Your task to perform on an android device: open chrome and create a bookmark for the current page Image 0: 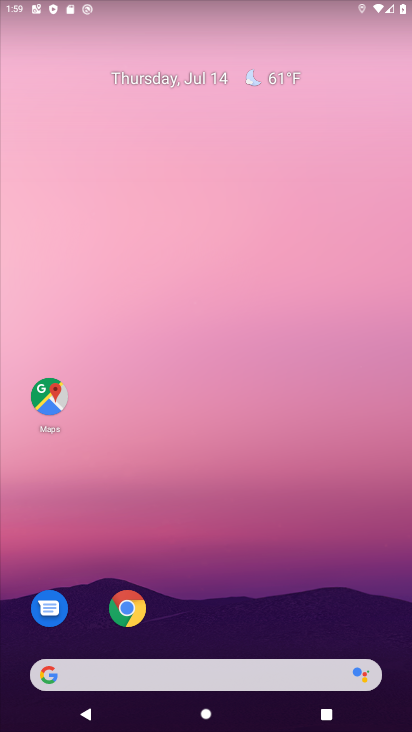
Step 0: click (130, 609)
Your task to perform on an android device: open chrome and create a bookmark for the current page Image 1: 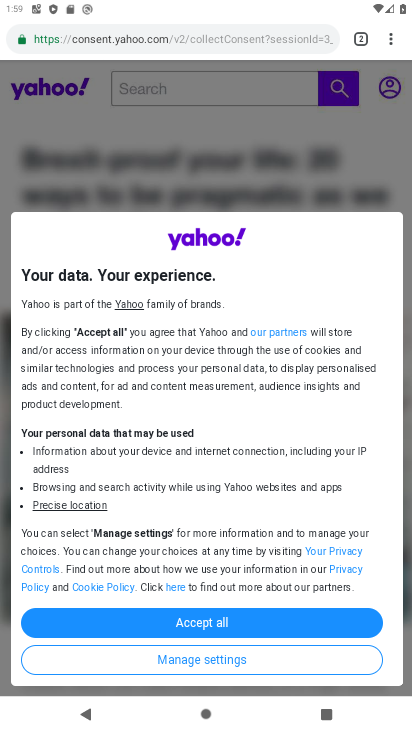
Step 1: click (391, 39)
Your task to perform on an android device: open chrome and create a bookmark for the current page Image 2: 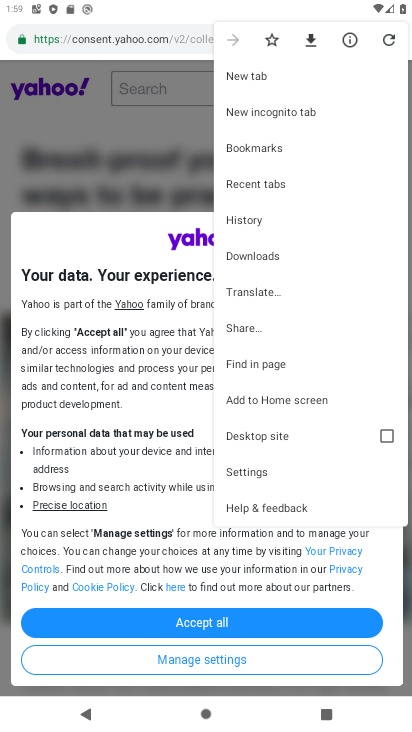
Step 2: click (272, 40)
Your task to perform on an android device: open chrome and create a bookmark for the current page Image 3: 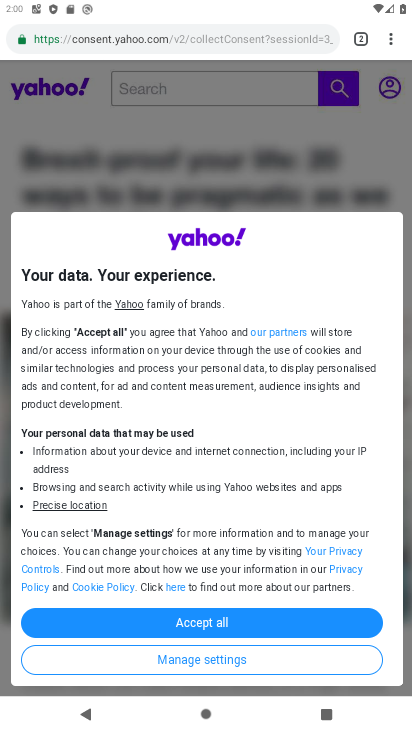
Step 3: task complete